Your task to perform on an android device: Open calendar and show me the third week of next month Image 0: 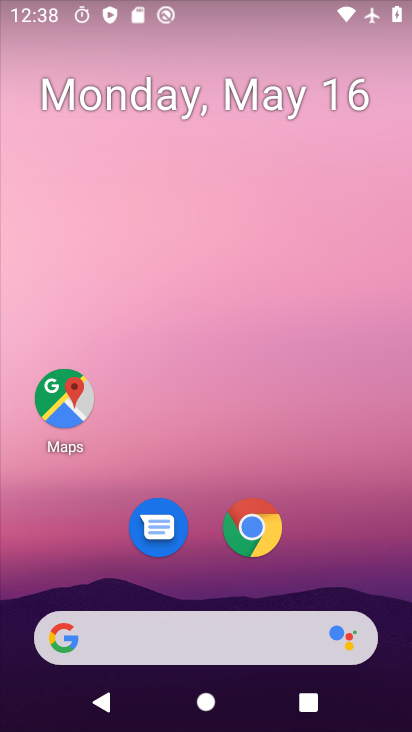
Step 0: press home button
Your task to perform on an android device: Open calendar and show me the third week of next month Image 1: 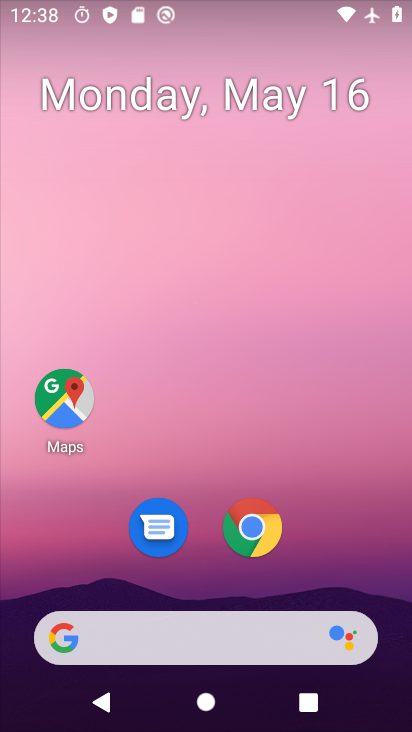
Step 1: drag from (151, 646) to (249, 294)
Your task to perform on an android device: Open calendar and show me the third week of next month Image 2: 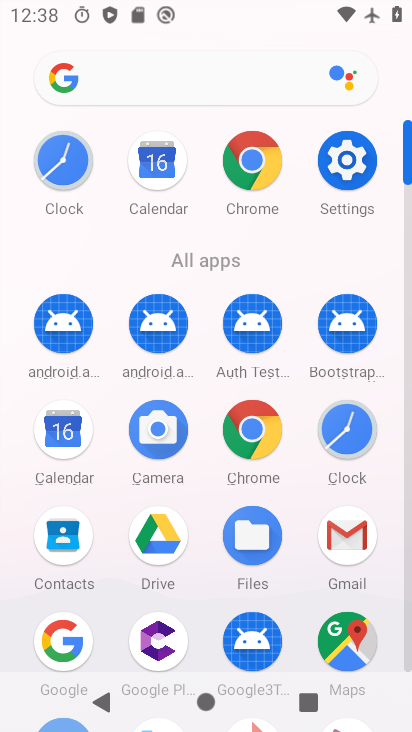
Step 2: click (59, 439)
Your task to perform on an android device: Open calendar and show me the third week of next month Image 3: 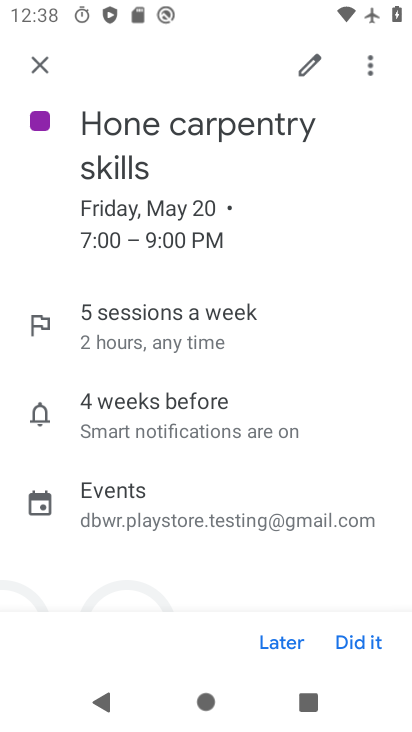
Step 3: click (42, 71)
Your task to perform on an android device: Open calendar and show me the third week of next month Image 4: 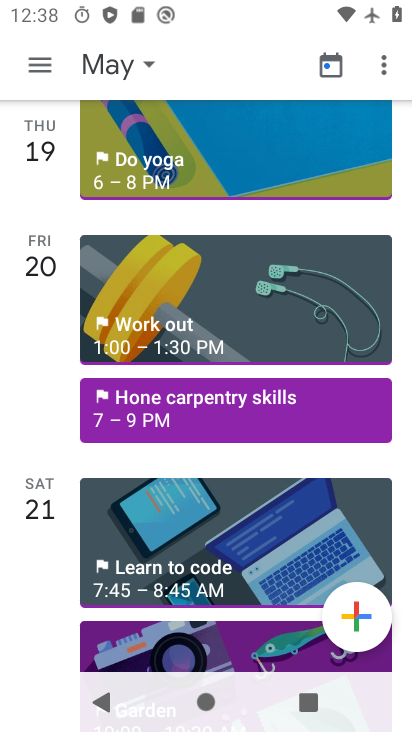
Step 4: click (125, 61)
Your task to perform on an android device: Open calendar and show me the third week of next month Image 5: 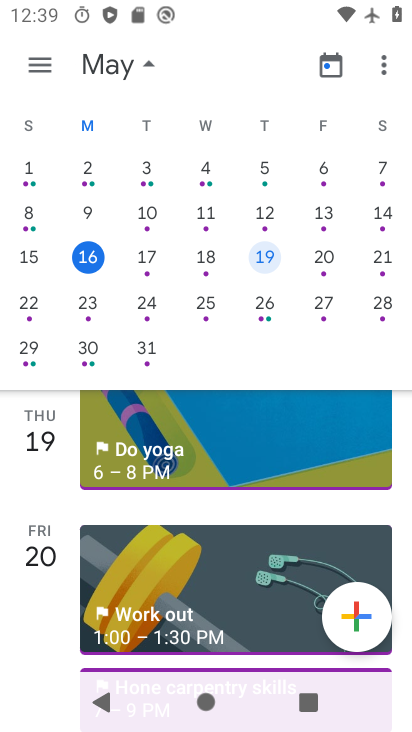
Step 5: drag from (334, 255) to (3, 312)
Your task to perform on an android device: Open calendar and show me the third week of next month Image 6: 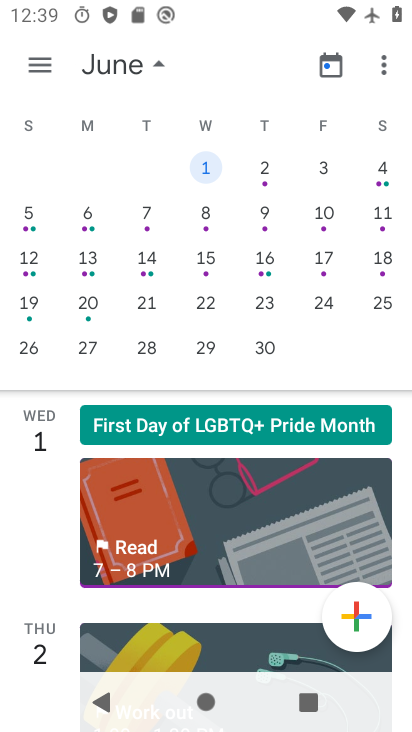
Step 6: click (32, 256)
Your task to perform on an android device: Open calendar and show me the third week of next month Image 7: 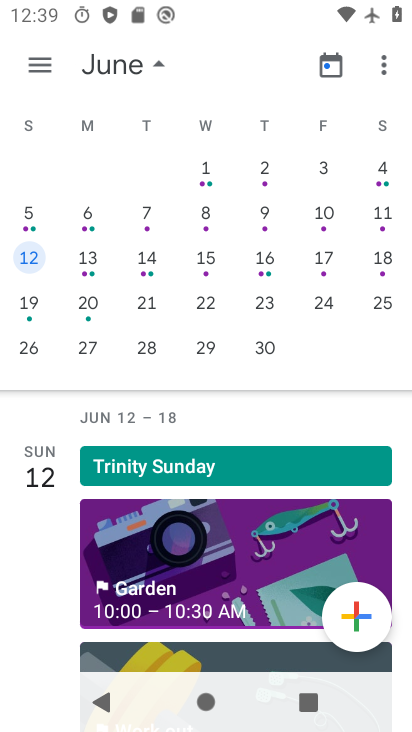
Step 7: click (37, 64)
Your task to perform on an android device: Open calendar and show me the third week of next month Image 8: 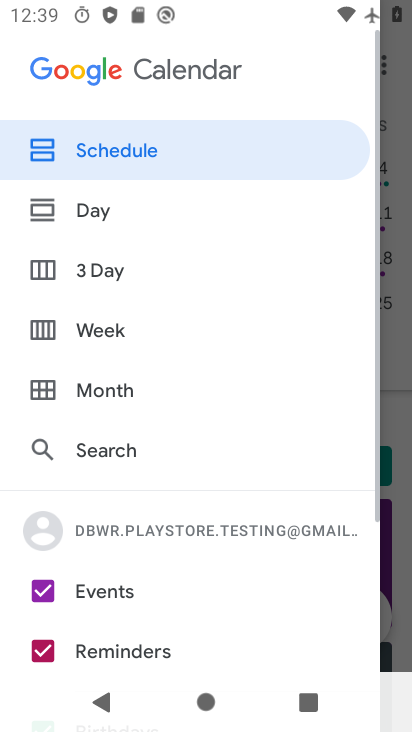
Step 8: click (109, 333)
Your task to perform on an android device: Open calendar and show me the third week of next month Image 9: 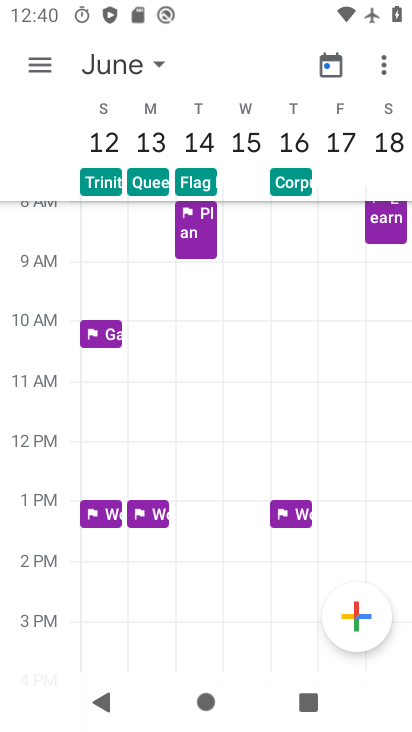
Step 9: task complete